Your task to perform on an android device: Go to eBay Image 0: 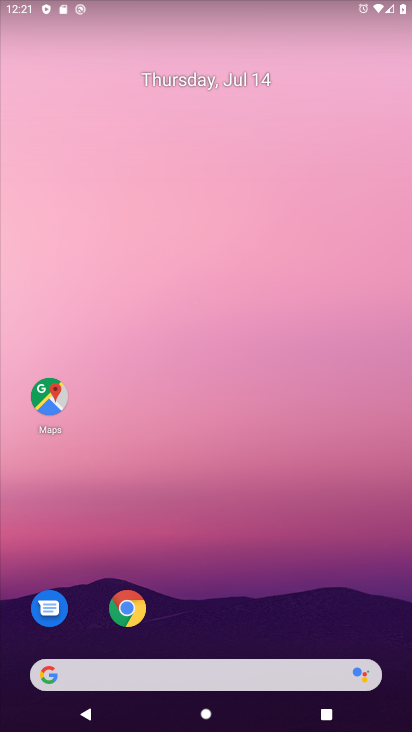
Step 0: click (128, 608)
Your task to perform on an android device: Go to eBay Image 1: 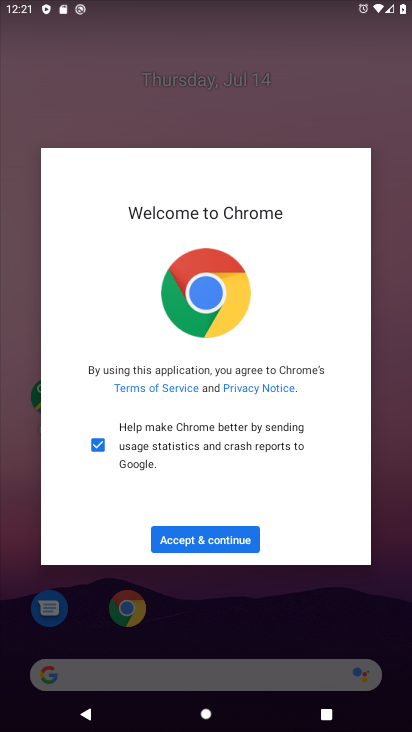
Step 1: click (208, 539)
Your task to perform on an android device: Go to eBay Image 2: 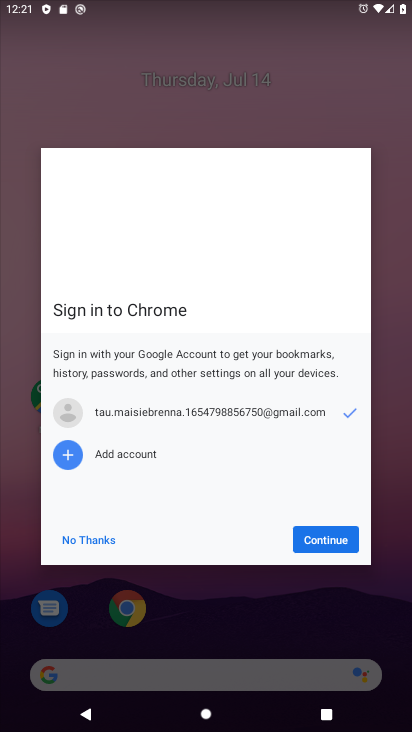
Step 2: click (315, 539)
Your task to perform on an android device: Go to eBay Image 3: 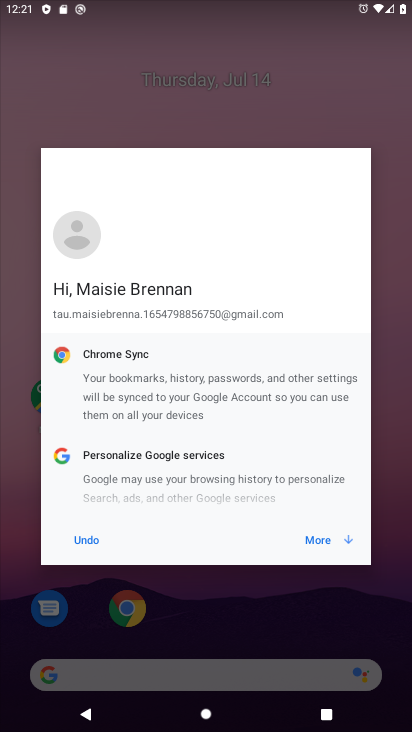
Step 3: click (315, 539)
Your task to perform on an android device: Go to eBay Image 4: 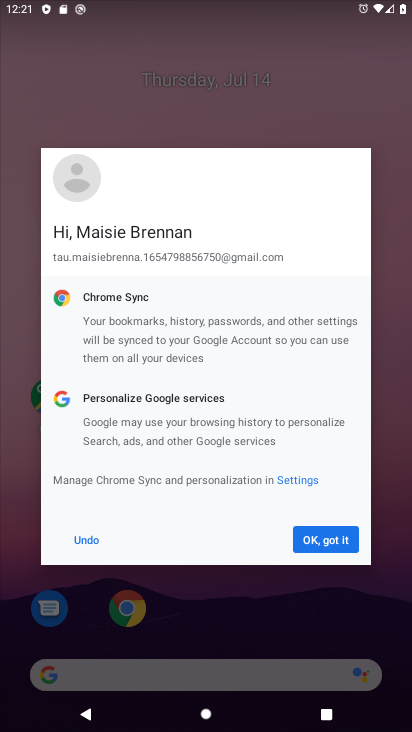
Step 4: click (315, 539)
Your task to perform on an android device: Go to eBay Image 5: 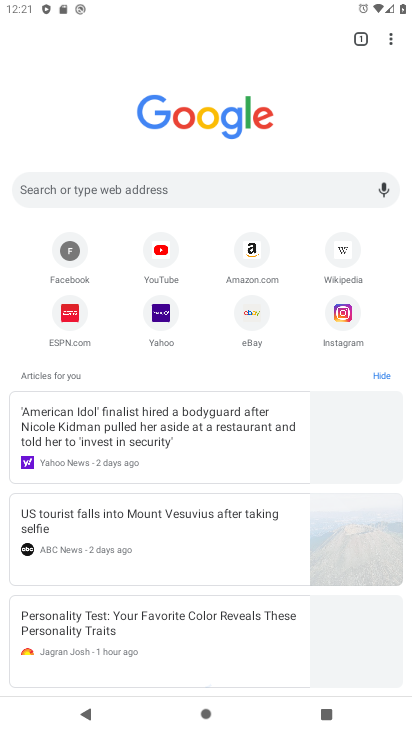
Step 5: click (252, 315)
Your task to perform on an android device: Go to eBay Image 6: 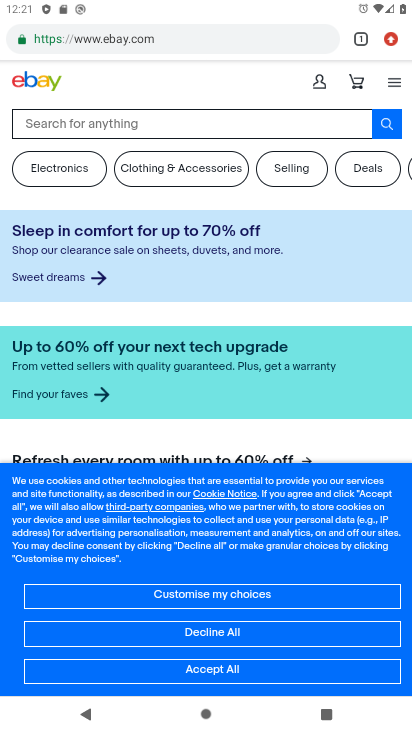
Step 6: task complete